Your task to perform on an android device: Empty the shopping cart on ebay. Search for logitech g pro on ebay, select the first entry, add it to the cart, then select checkout. Image 0: 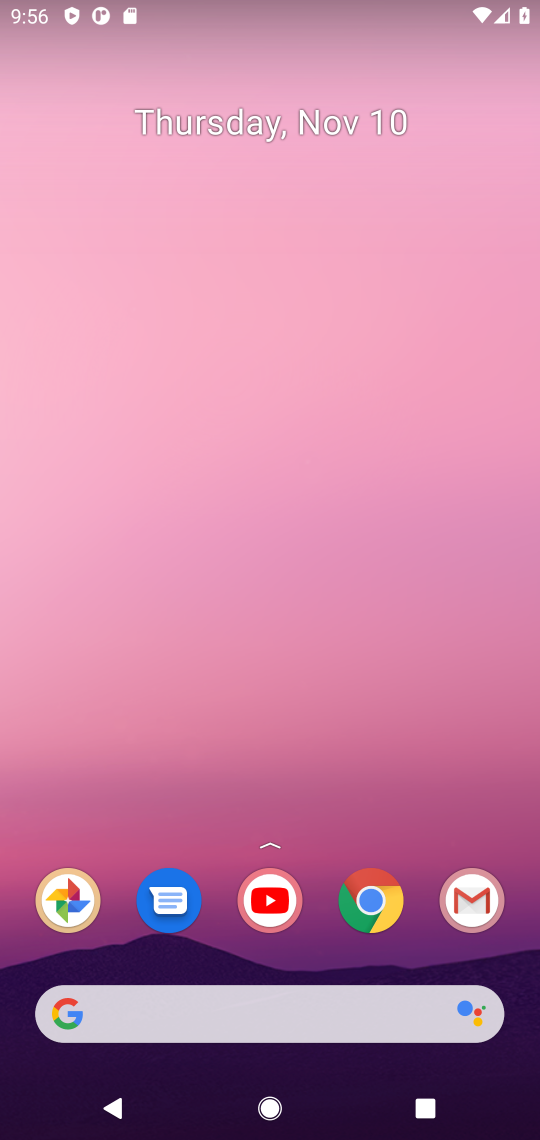
Step 0: click (365, 901)
Your task to perform on an android device: Empty the shopping cart on ebay. Search for logitech g pro on ebay, select the first entry, add it to the cart, then select checkout. Image 1: 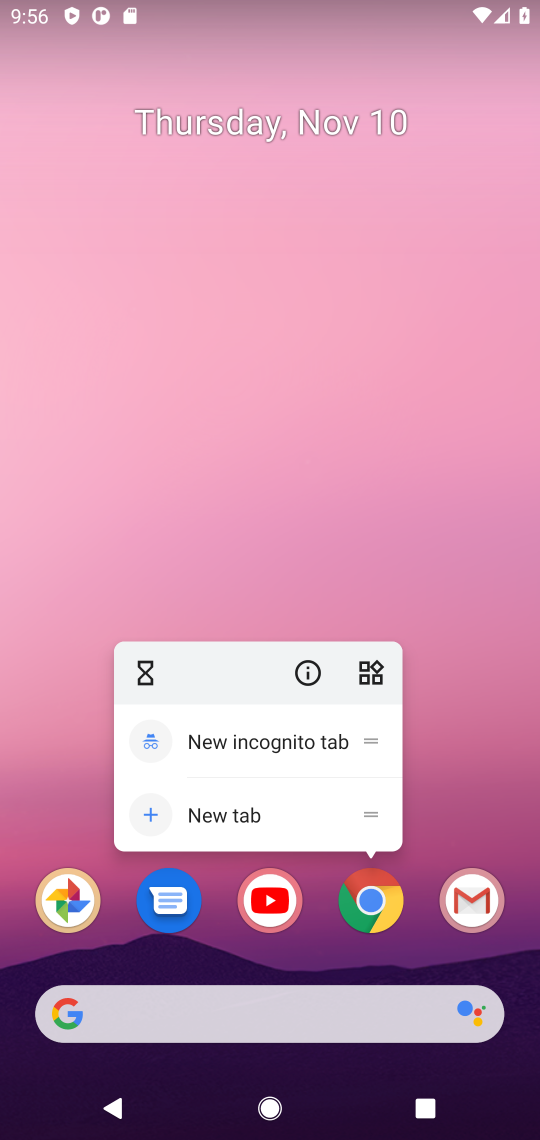
Step 1: click (365, 901)
Your task to perform on an android device: Empty the shopping cart on ebay. Search for logitech g pro on ebay, select the first entry, add it to the cart, then select checkout. Image 2: 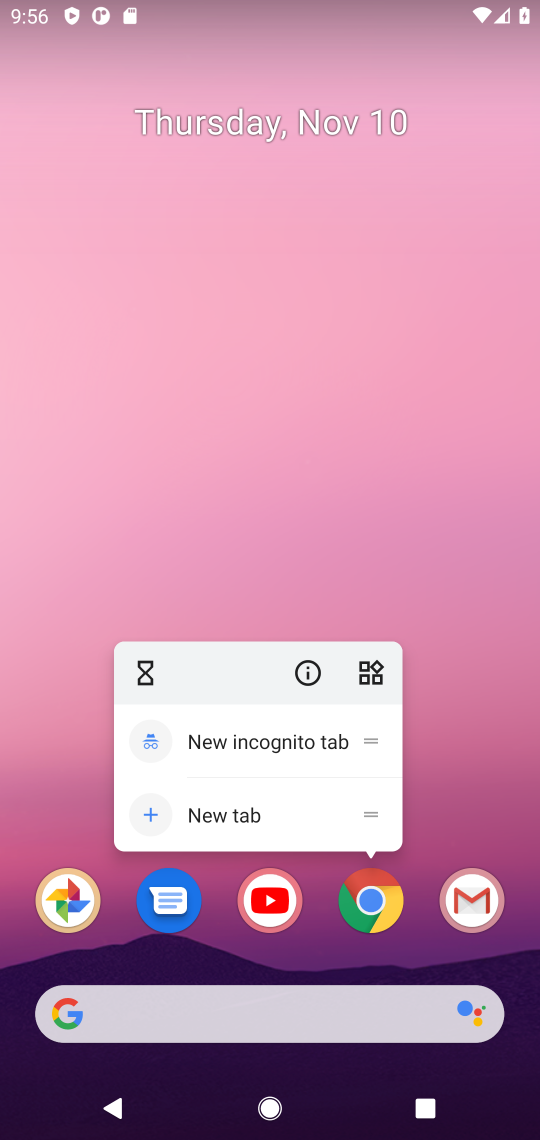
Step 2: click (365, 901)
Your task to perform on an android device: Empty the shopping cart on ebay. Search for logitech g pro on ebay, select the first entry, add it to the cart, then select checkout. Image 3: 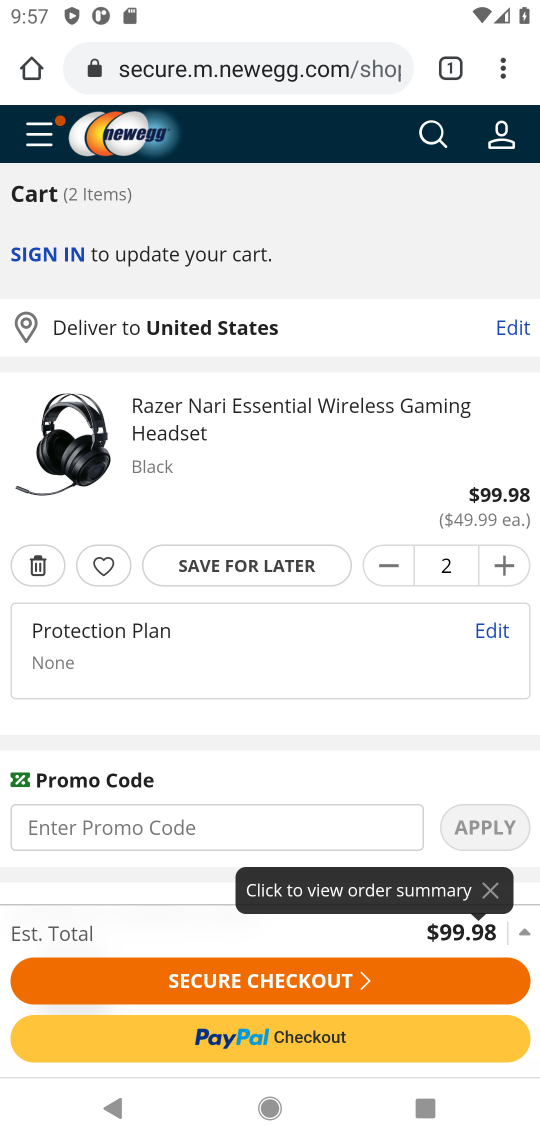
Step 3: click (355, 57)
Your task to perform on an android device: Empty the shopping cart on ebay. Search for logitech g pro on ebay, select the first entry, add it to the cart, then select checkout. Image 4: 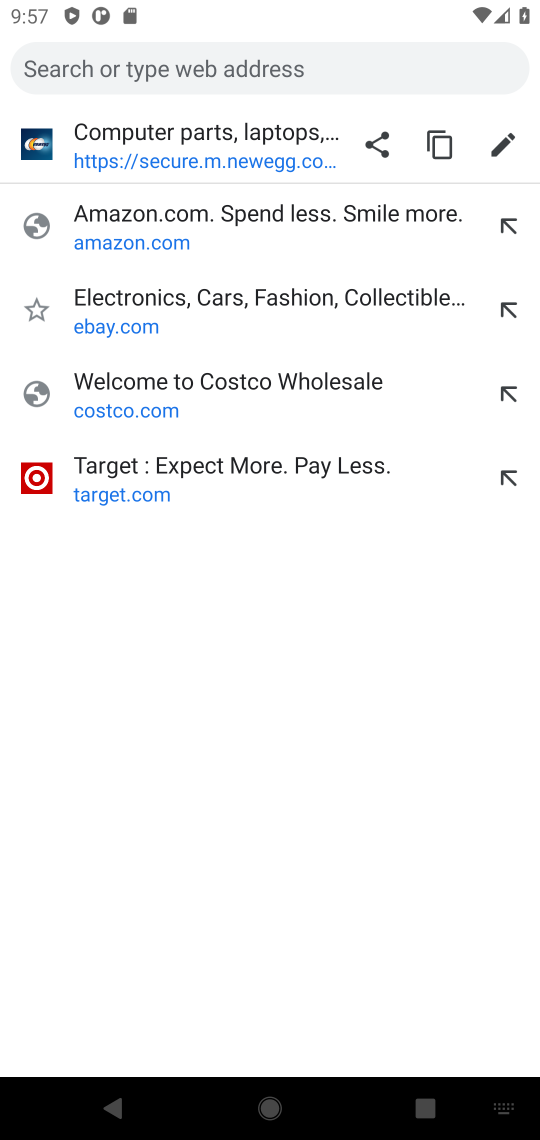
Step 4: click (130, 325)
Your task to perform on an android device: Empty the shopping cart on ebay. Search for logitech g pro on ebay, select the first entry, add it to the cart, then select checkout. Image 5: 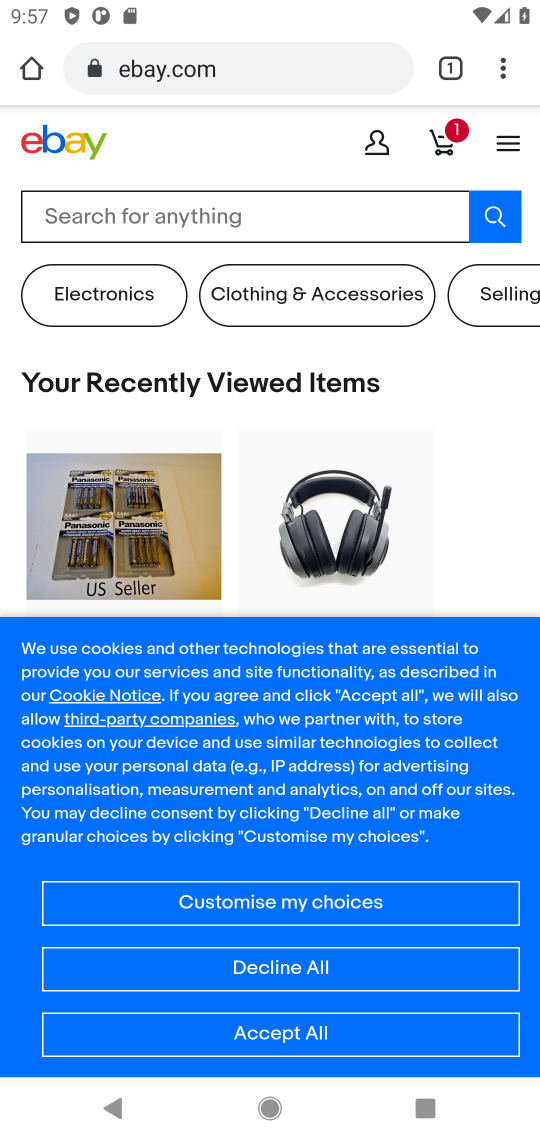
Step 5: click (300, 1046)
Your task to perform on an android device: Empty the shopping cart on ebay. Search for logitech g pro on ebay, select the first entry, add it to the cart, then select checkout. Image 6: 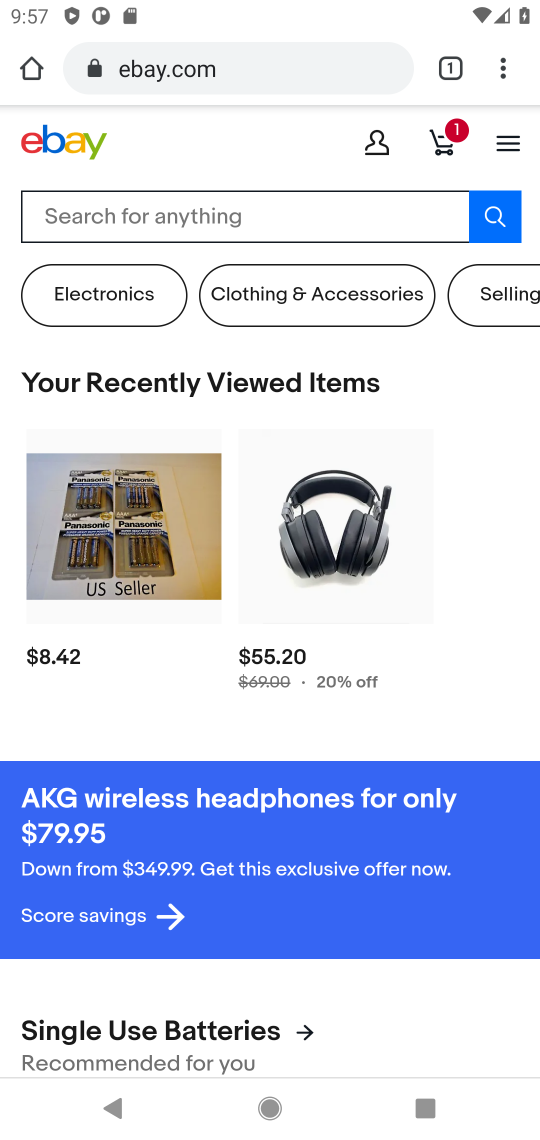
Step 6: click (103, 206)
Your task to perform on an android device: Empty the shopping cart on ebay. Search for logitech g pro on ebay, select the first entry, add it to the cart, then select checkout. Image 7: 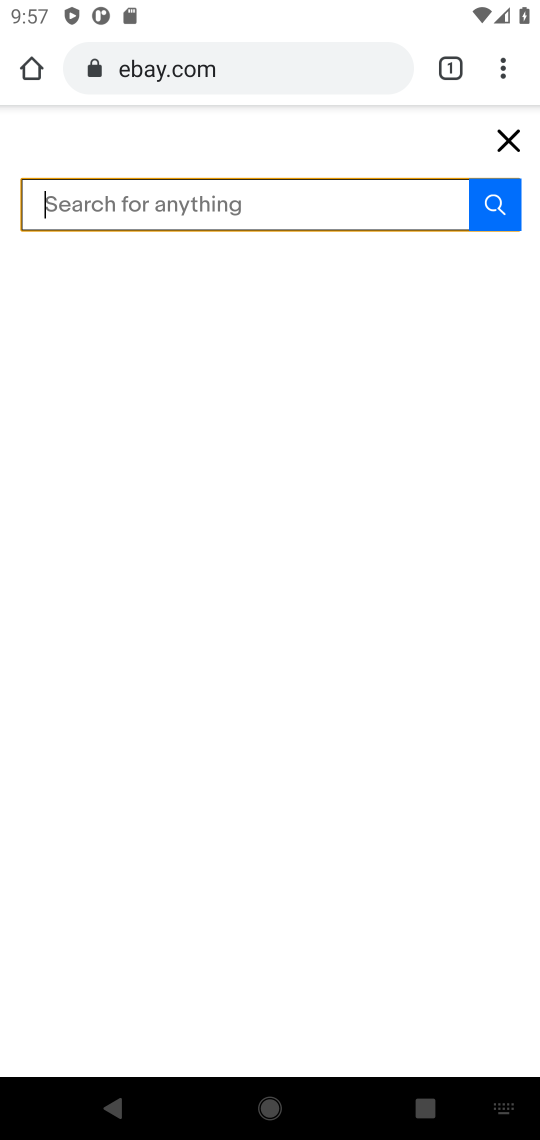
Step 7: type " logitech g pro"
Your task to perform on an android device: Empty the shopping cart on ebay. Search for logitech g pro on ebay, select the first entry, add it to the cart, then select checkout. Image 8: 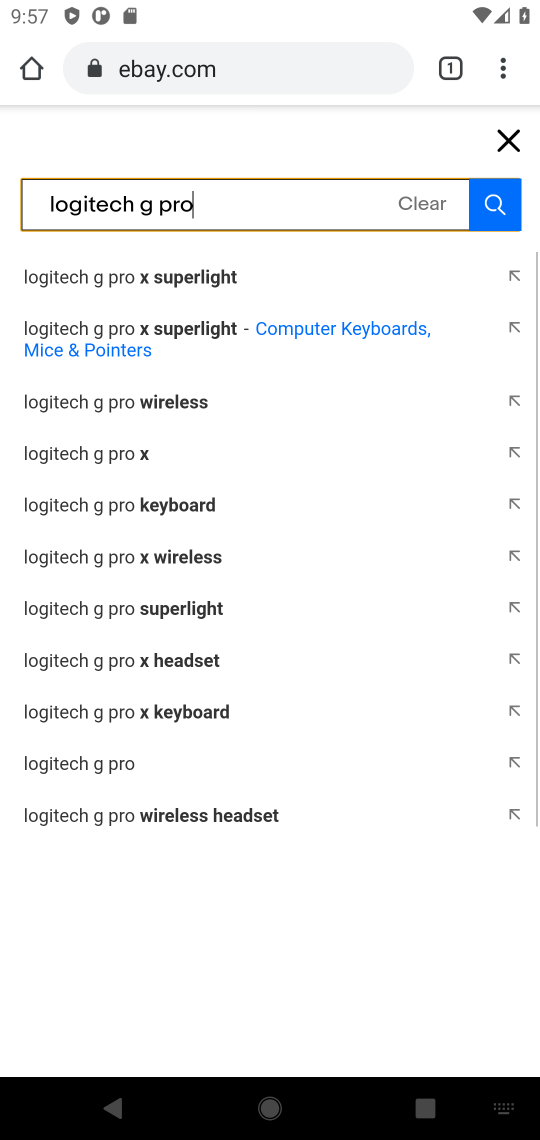
Step 8: press enter
Your task to perform on an android device: Empty the shopping cart on ebay. Search for logitech g pro on ebay, select the first entry, add it to the cart, then select checkout. Image 9: 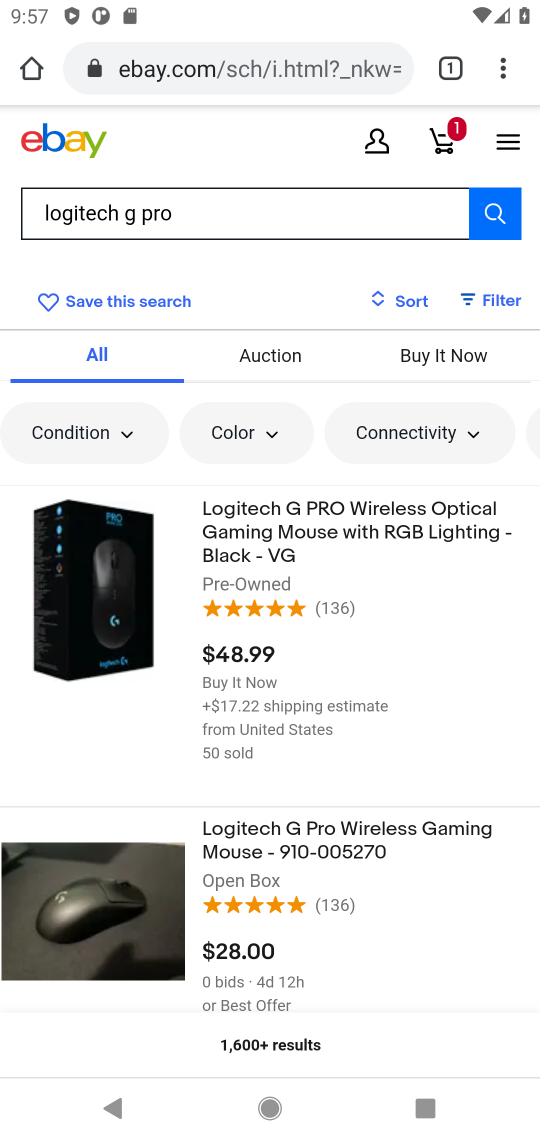
Step 9: click (348, 567)
Your task to perform on an android device: Empty the shopping cart on ebay. Search for logitech g pro on ebay, select the first entry, add it to the cart, then select checkout. Image 10: 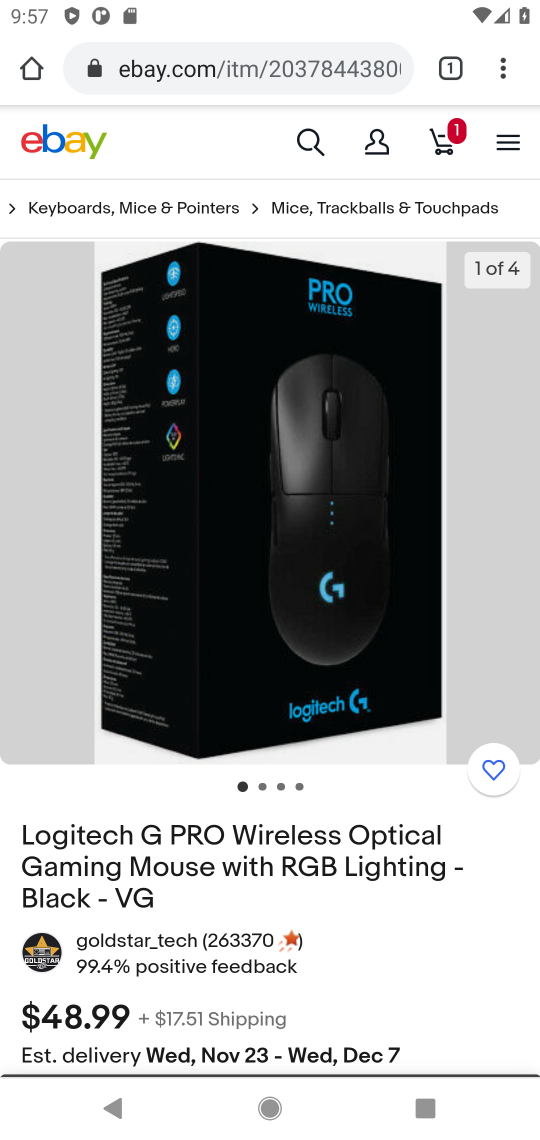
Step 10: drag from (263, 1011) to (432, 399)
Your task to perform on an android device: Empty the shopping cart on ebay. Search for logitech g pro on ebay, select the first entry, add it to the cart, then select checkout. Image 11: 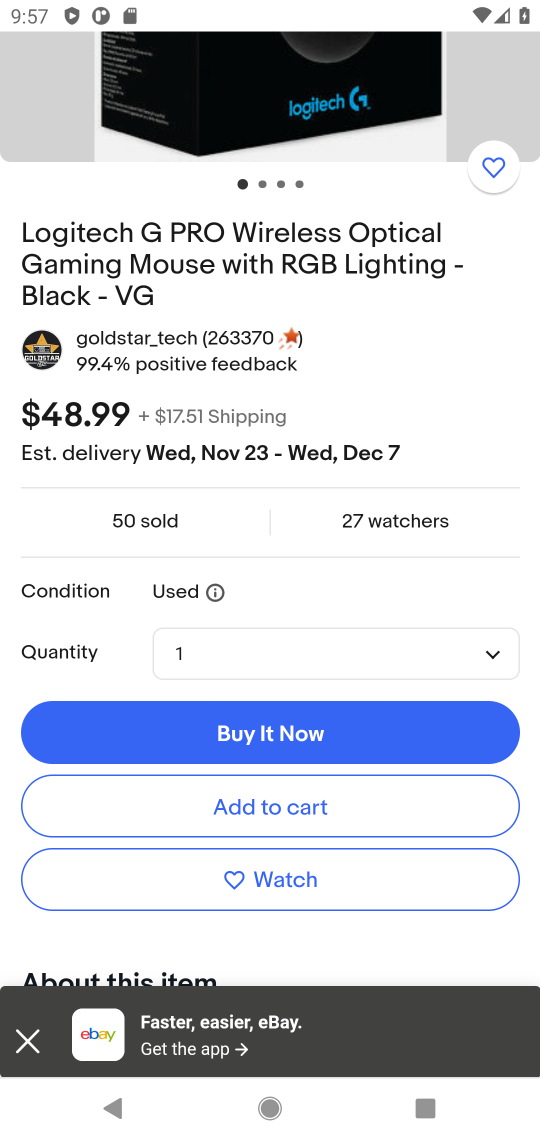
Step 11: click (275, 811)
Your task to perform on an android device: Empty the shopping cart on ebay. Search for logitech g pro on ebay, select the first entry, add it to the cart, then select checkout. Image 12: 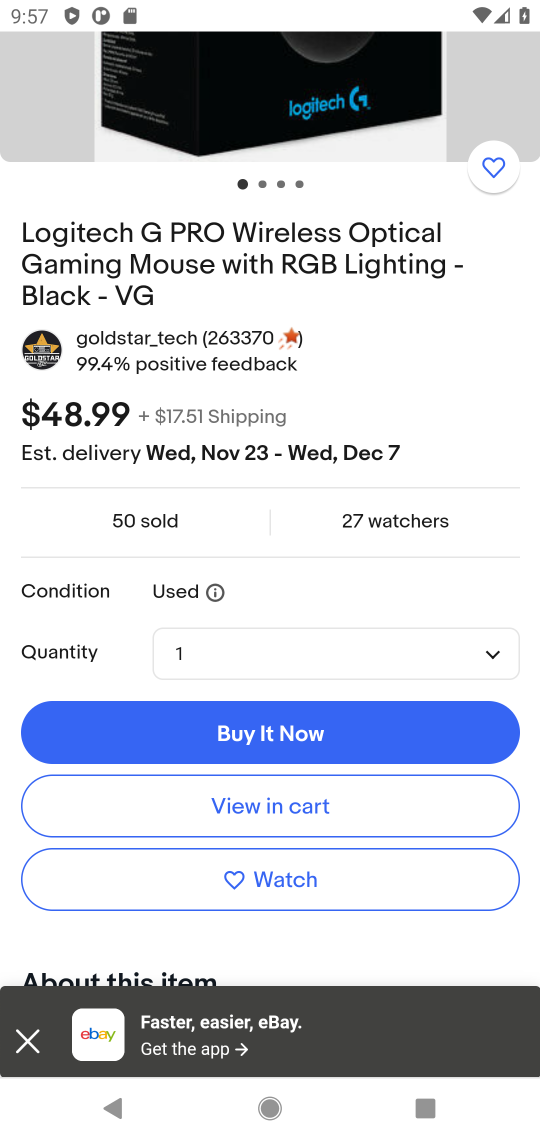
Step 12: click (275, 811)
Your task to perform on an android device: Empty the shopping cart on ebay. Search for logitech g pro on ebay, select the first entry, add it to the cart, then select checkout. Image 13: 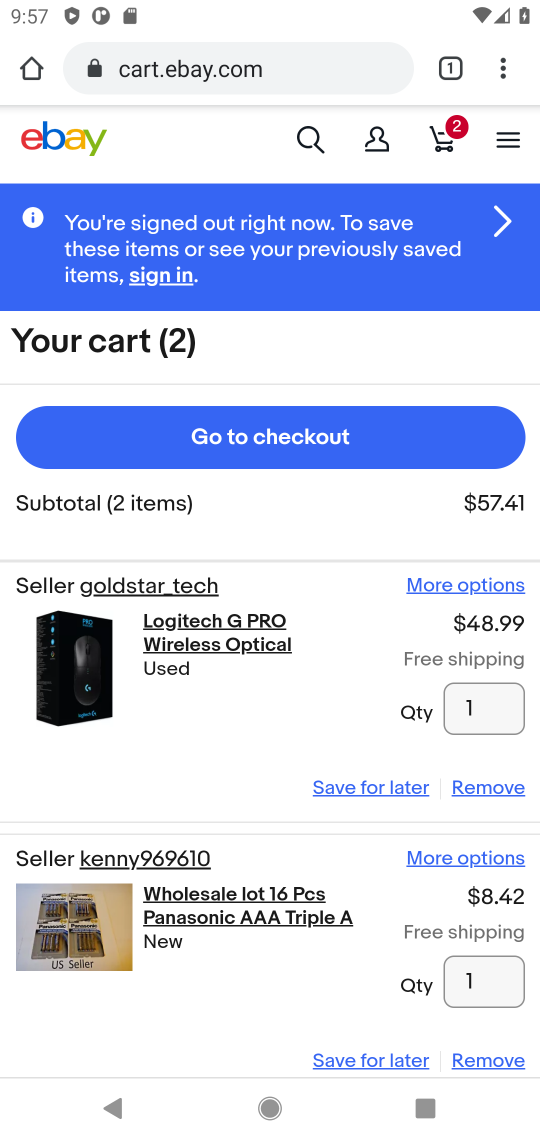
Step 13: click (477, 1055)
Your task to perform on an android device: Empty the shopping cart on ebay. Search for logitech g pro on ebay, select the first entry, add it to the cart, then select checkout. Image 14: 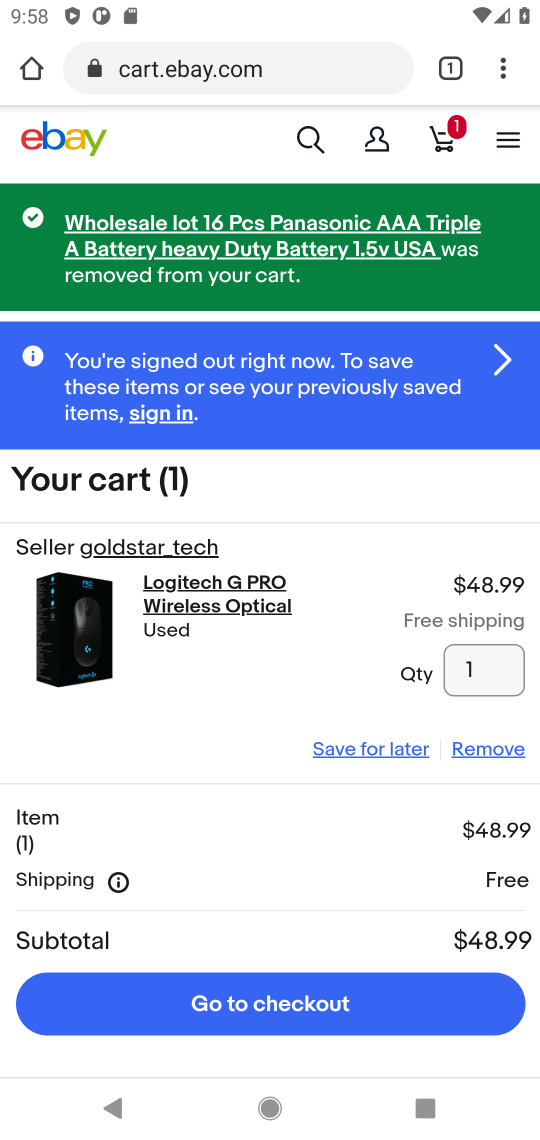
Step 14: click (297, 1002)
Your task to perform on an android device: Empty the shopping cart on ebay. Search for logitech g pro on ebay, select the first entry, add it to the cart, then select checkout. Image 15: 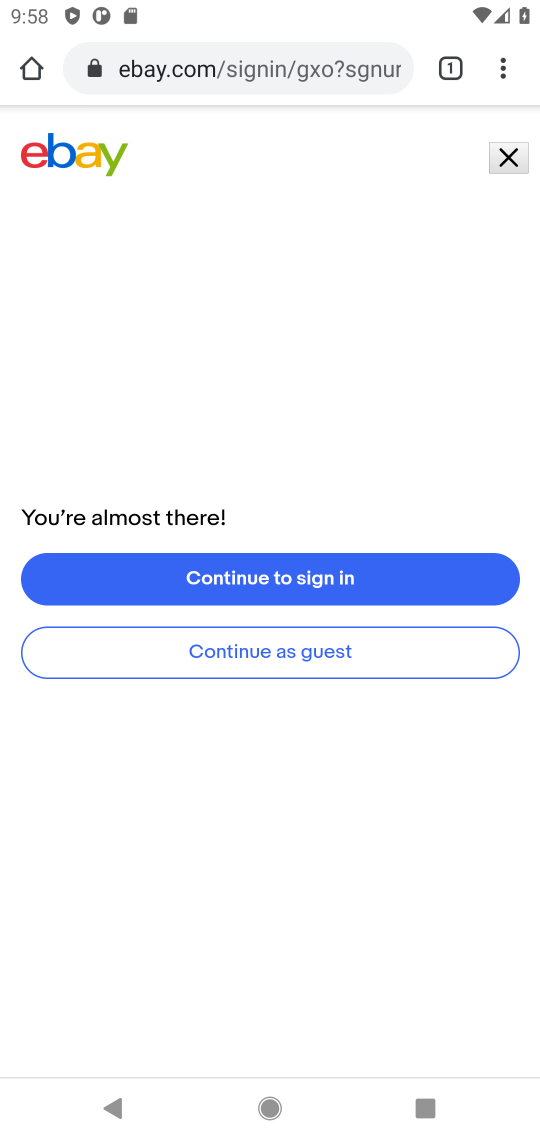
Step 15: task complete